Your task to perform on an android device: find which apps use the phone's location Image 0: 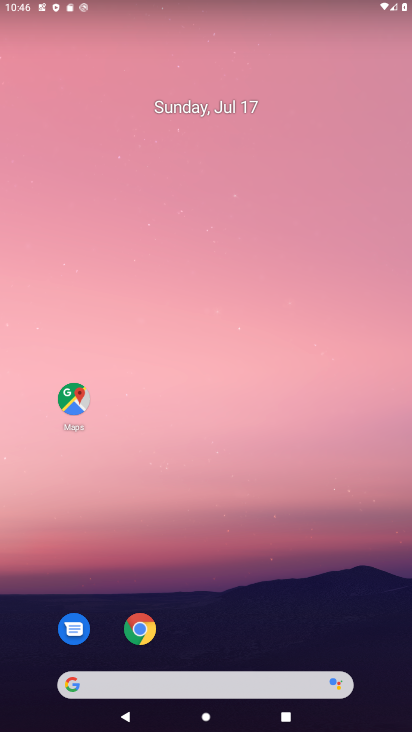
Step 0: drag from (318, 610) to (356, 1)
Your task to perform on an android device: find which apps use the phone's location Image 1: 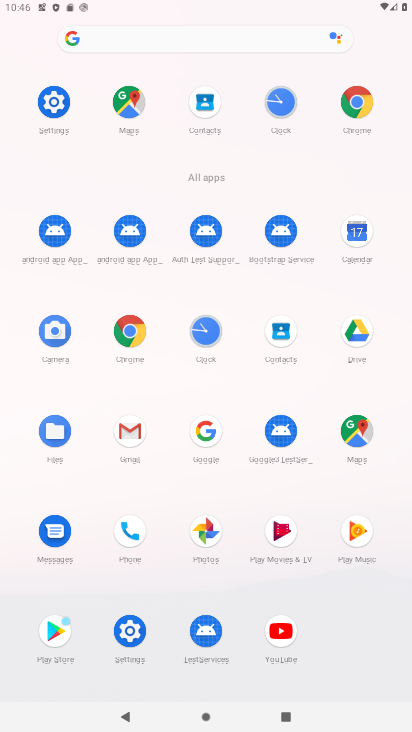
Step 1: click (61, 107)
Your task to perform on an android device: find which apps use the phone's location Image 2: 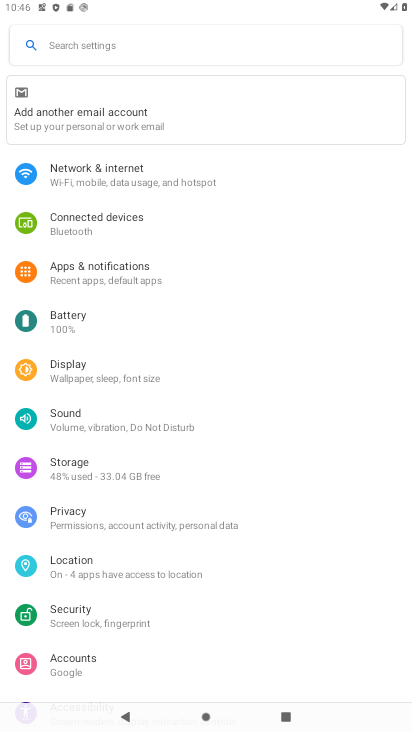
Step 2: click (90, 560)
Your task to perform on an android device: find which apps use the phone's location Image 3: 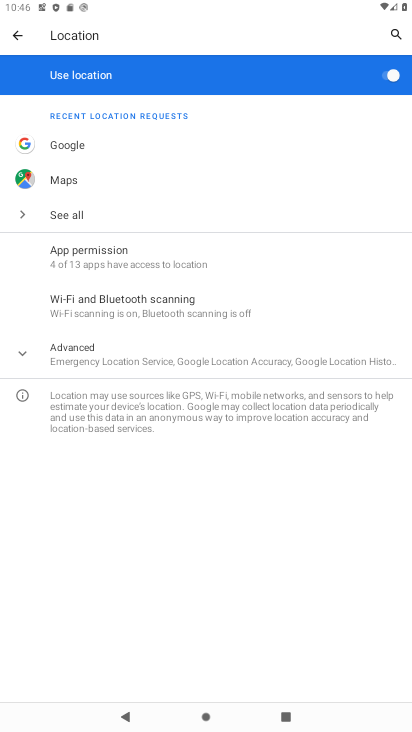
Step 3: click (155, 248)
Your task to perform on an android device: find which apps use the phone's location Image 4: 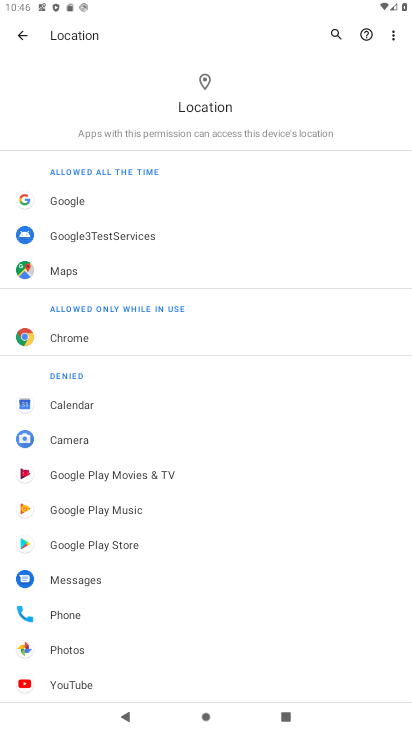
Step 4: task complete